Your task to perform on an android device: check google app version Image 0: 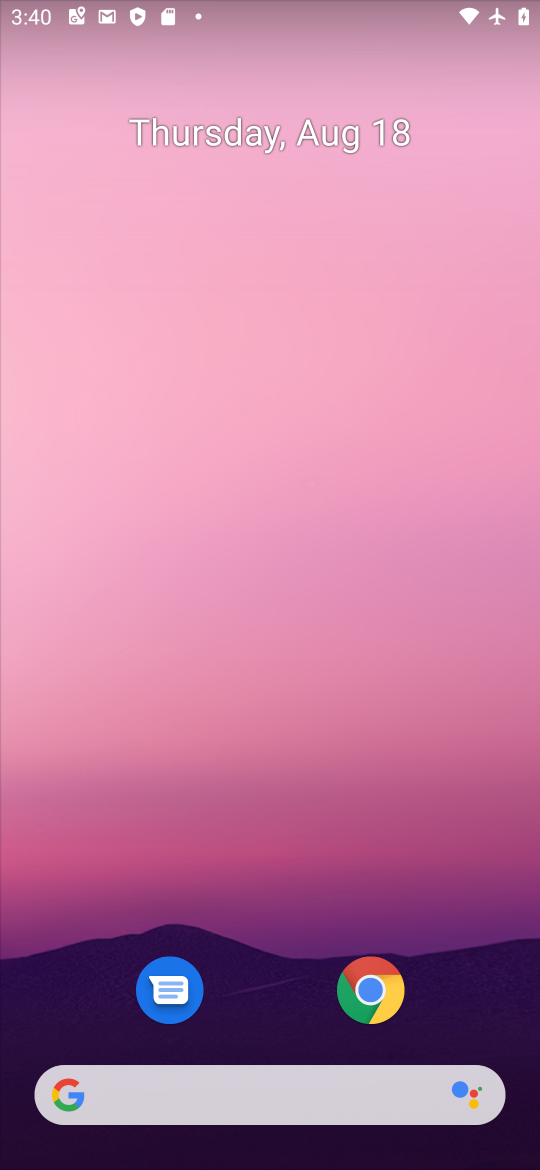
Step 0: press home button
Your task to perform on an android device: check google app version Image 1: 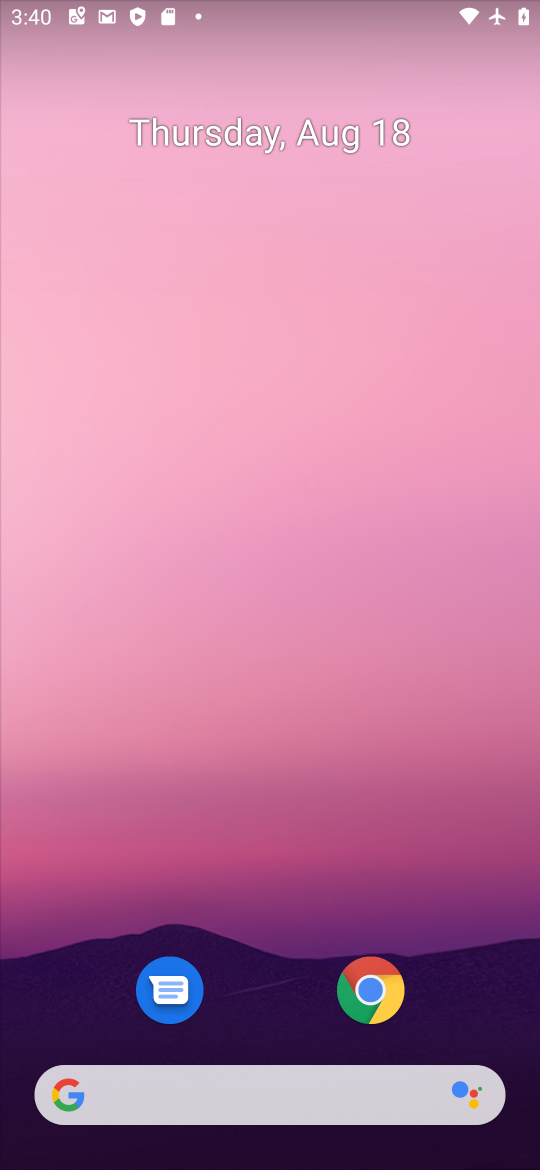
Step 1: drag from (268, 933) to (263, 10)
Your task to perform on an android device: check google app version Image 2: 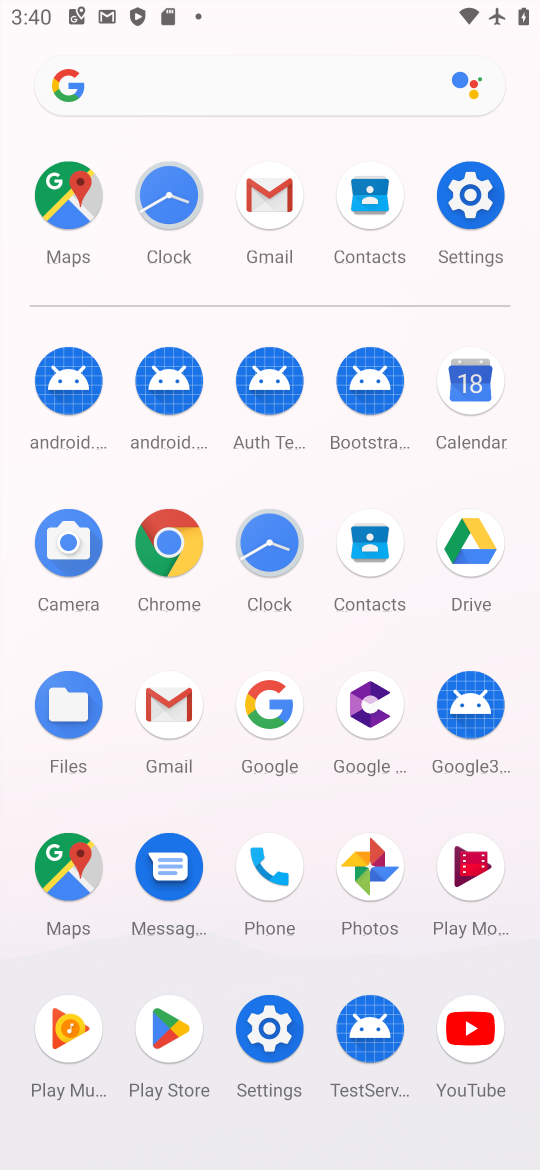
Step 2: click (270, 697)
Your task to perform on an android device: check google app version Image 3: 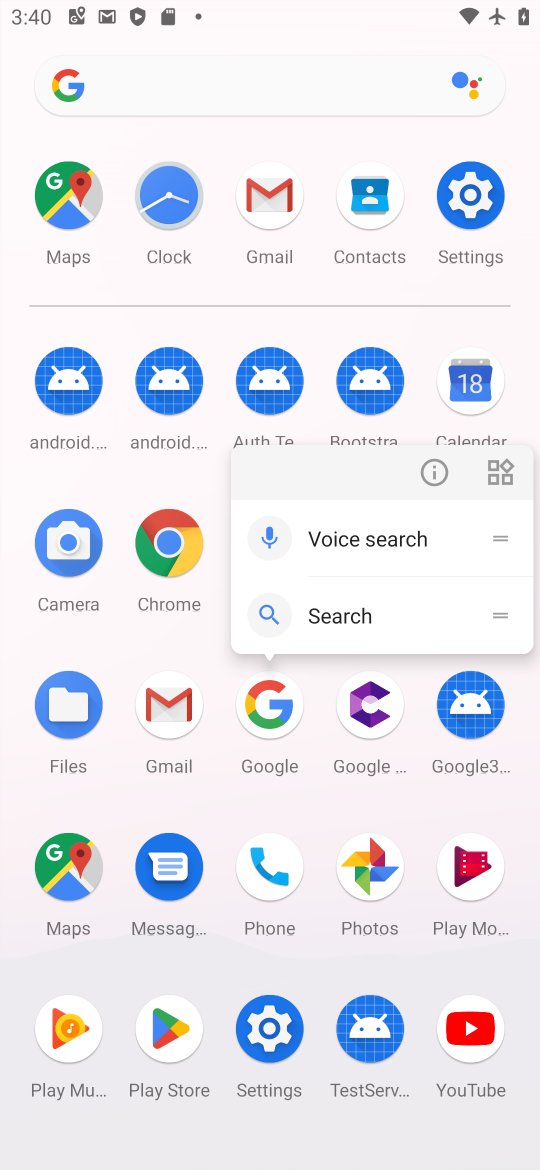
Step 3: click (439, 464)
Your task to perform on an android device: check google app version Image 4: 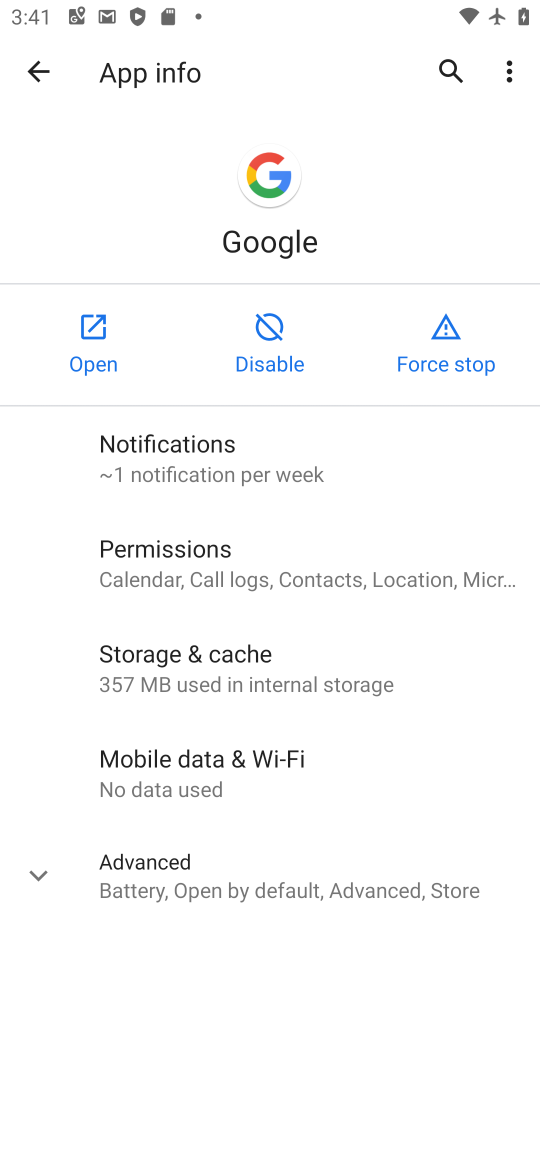
Step 4: click (219, 869)
Your task to perform on an android device: check google app version Image 5: 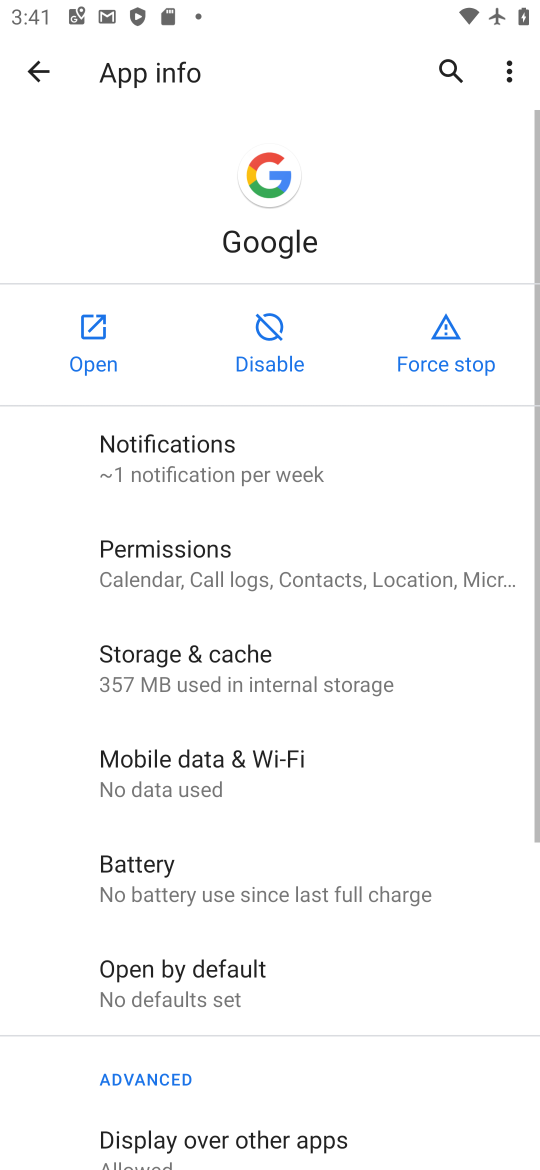
Step 5: task complete